Your task to perform on an android device: Clear the shopping cart on amazon.com. Add "razer blade" to the cart on amazon.com Image 0: 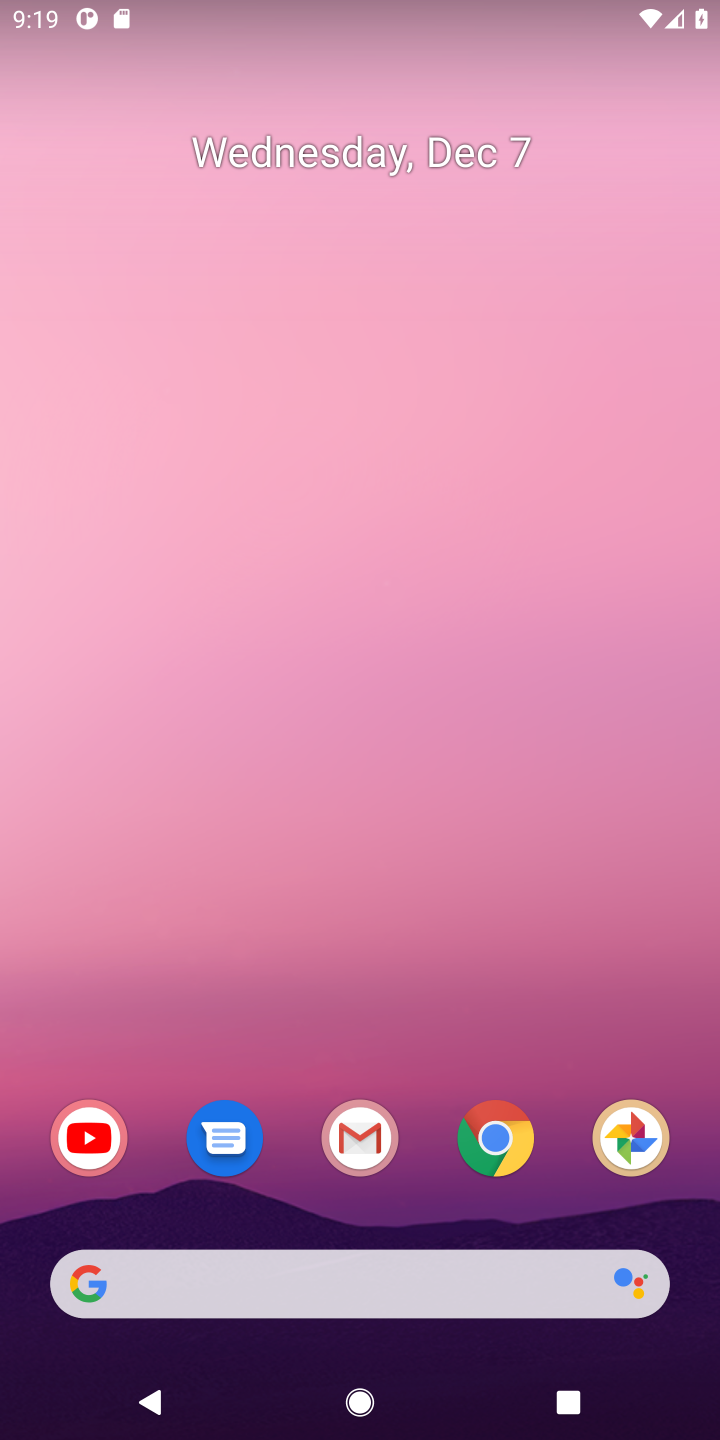
Step 0: press home button
Your task to perform on an android device: Clear the shopping cart on amazon.com. Add "razer blade" to the cart on amazon.com Image 1: 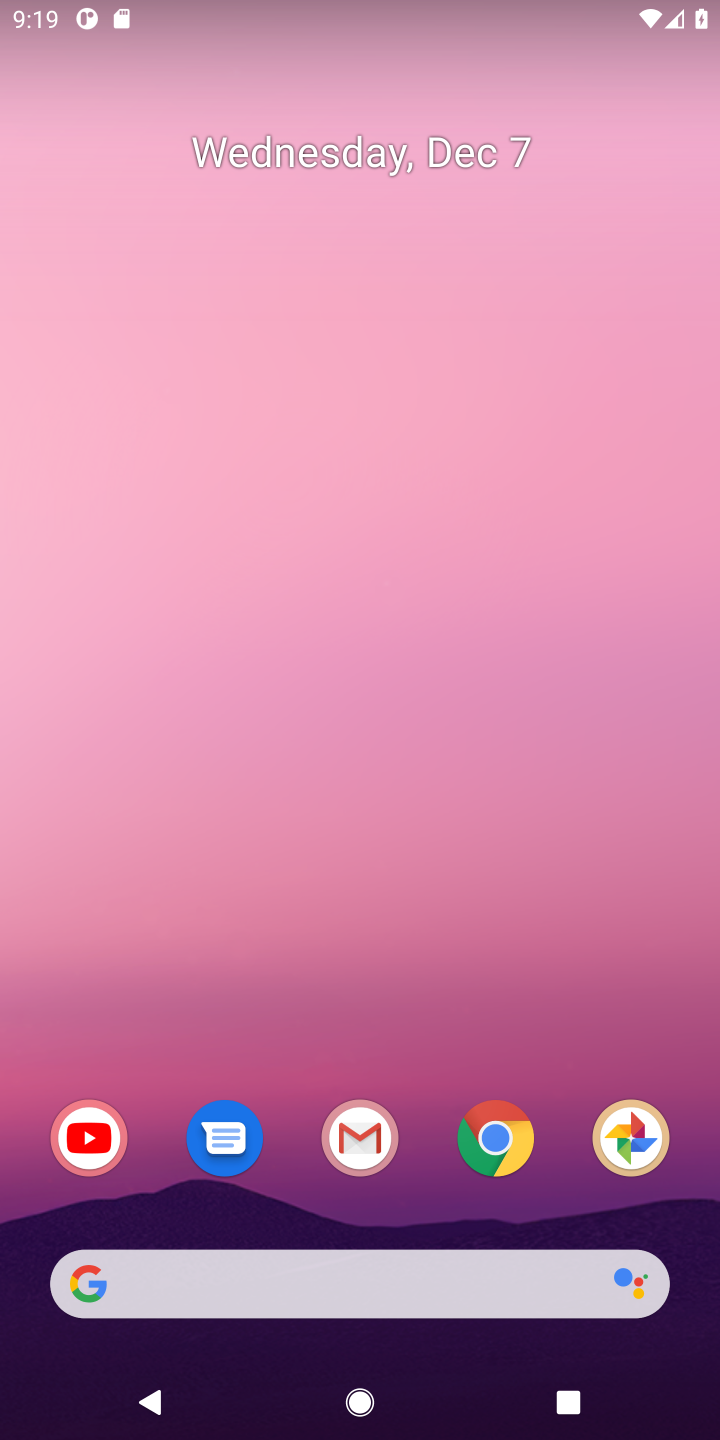
Step 1: click (131, 1278)
Your task to perform on an android device: Clear the shopping cart on amazon.com. Add "razer blade" to the cart on amazon.com Image 2: 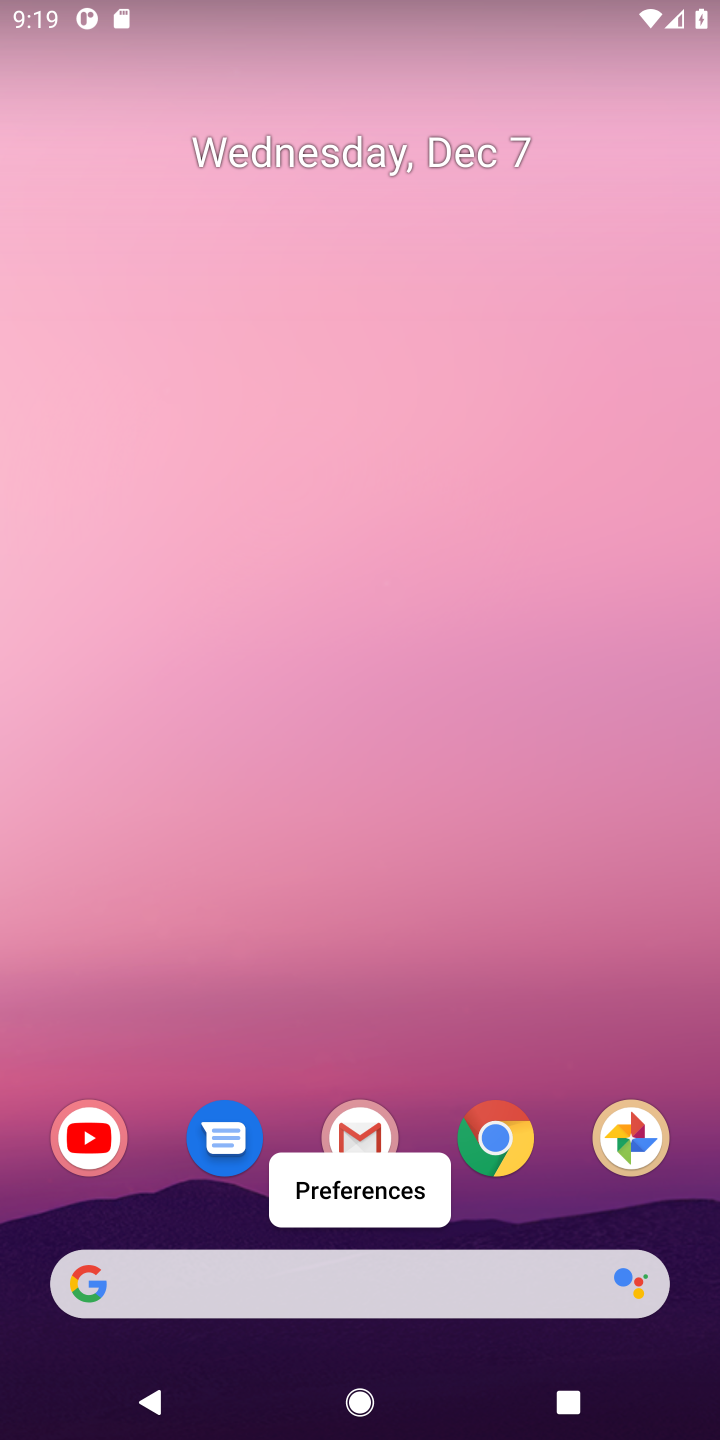
Step 2: click (123, 1274)
Your task to perform on an android device: Clear the shopping cart on amazon.com. Add "razer blade" to the cart on amazon.com Image 3: 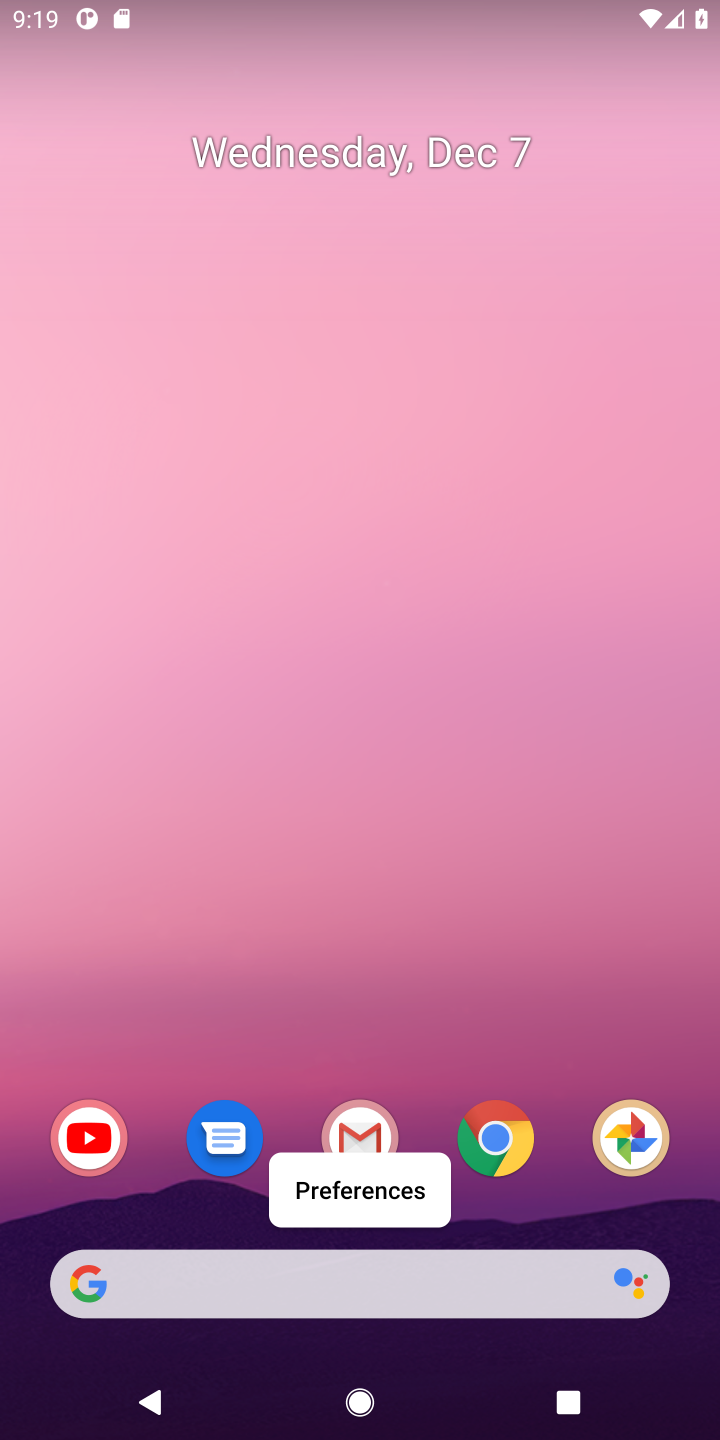
Step 3: click (128, 1283)
Your task to perform on an android device: Clear the shopping cart on amazon.com. Add "razer blade" to the cart on amazon.com Image 4: 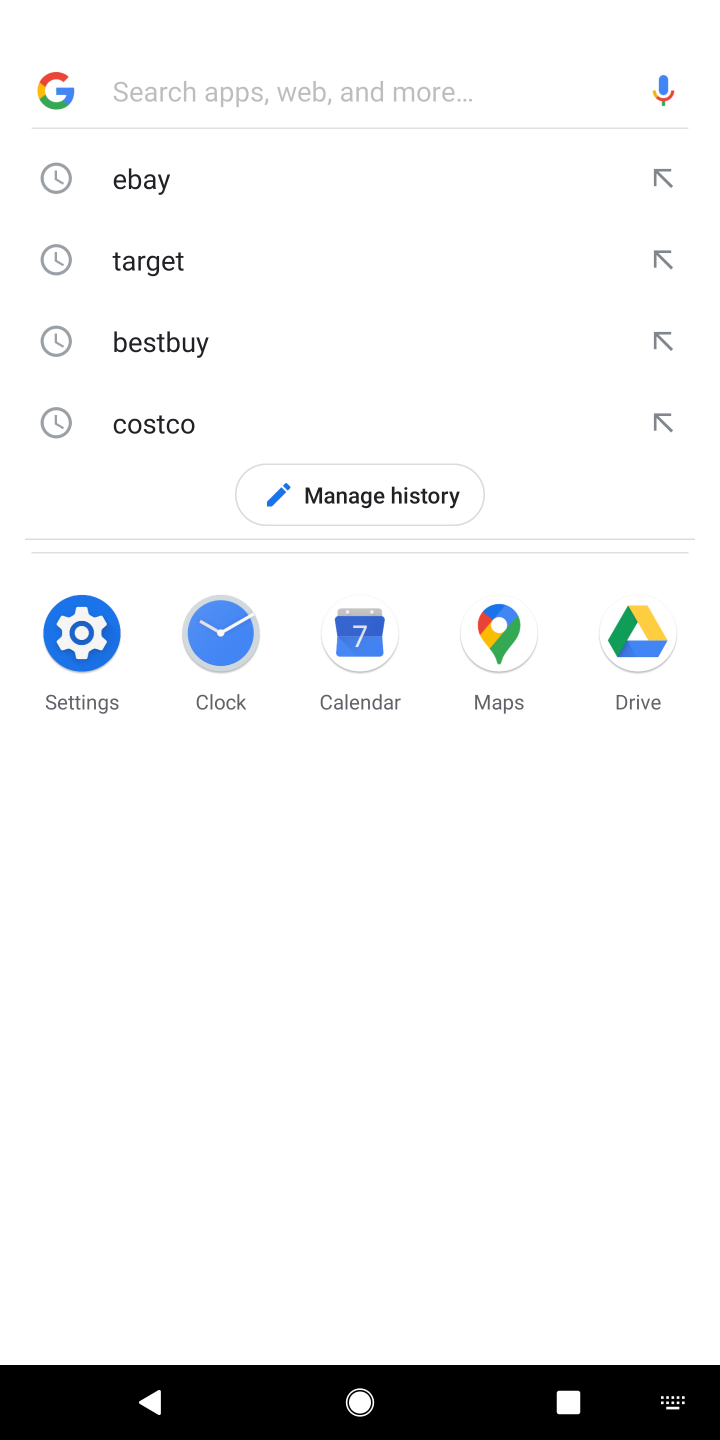
Step 4: type "amazon.com"
Your task to perform on an android device: Clear the shopping cart on amazon.com. Add "razer blade" to the cart on amazon.com Image 5: 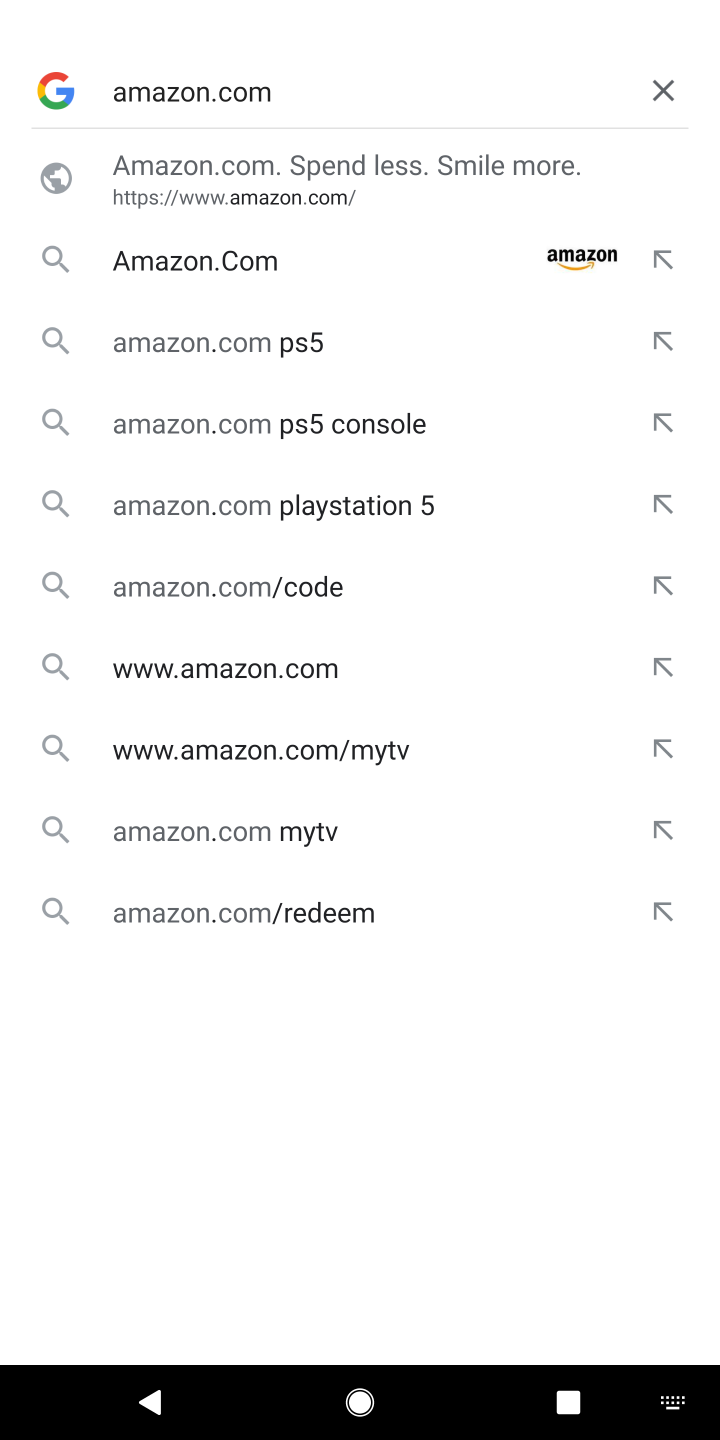
Step 5: press enter
Your task to perform on an android device: Clear the shopping cart on amazon.com. Add "razer blade" to the cart on amazon.com Image 6: 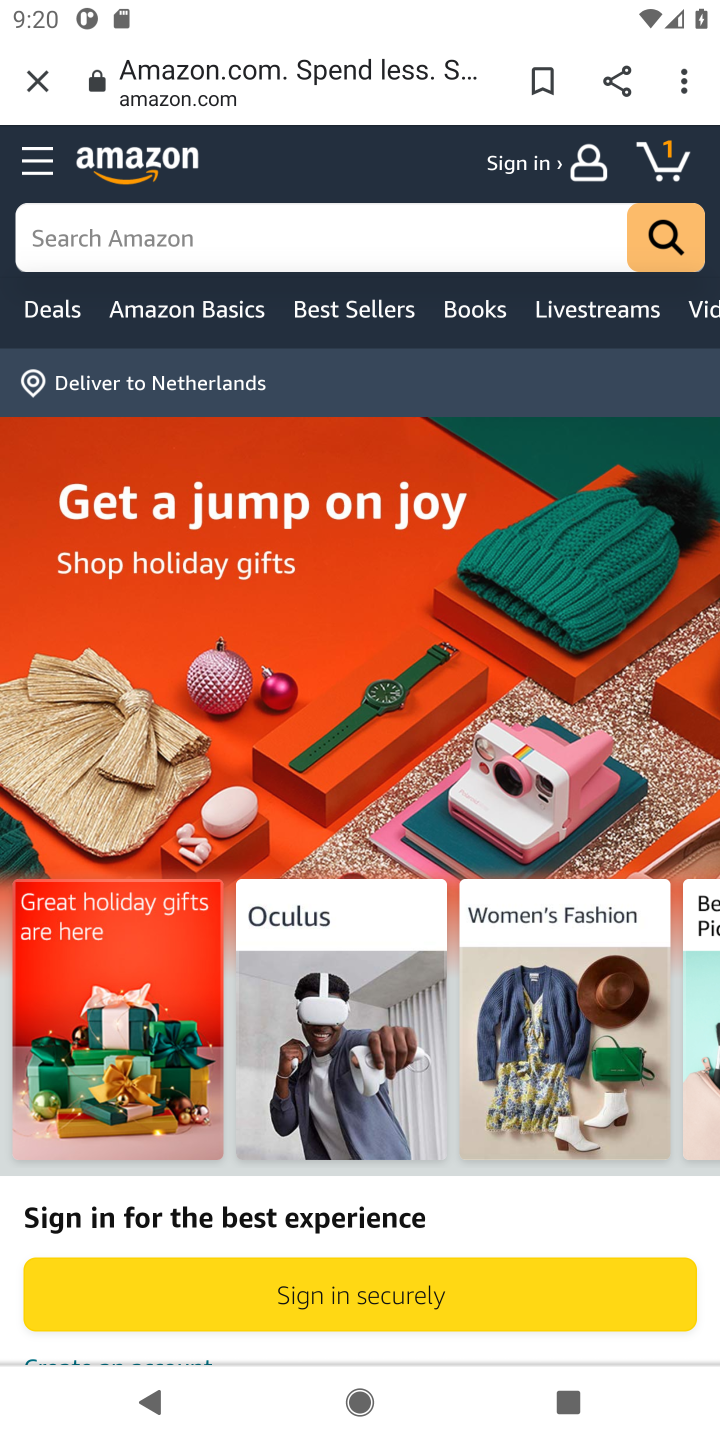
Step 6: click (663, 155)
Your task to perform on an android device: Clear the shopping cart on amazon.com. Add "razer blade" to the cart on amazon.com Image 7: 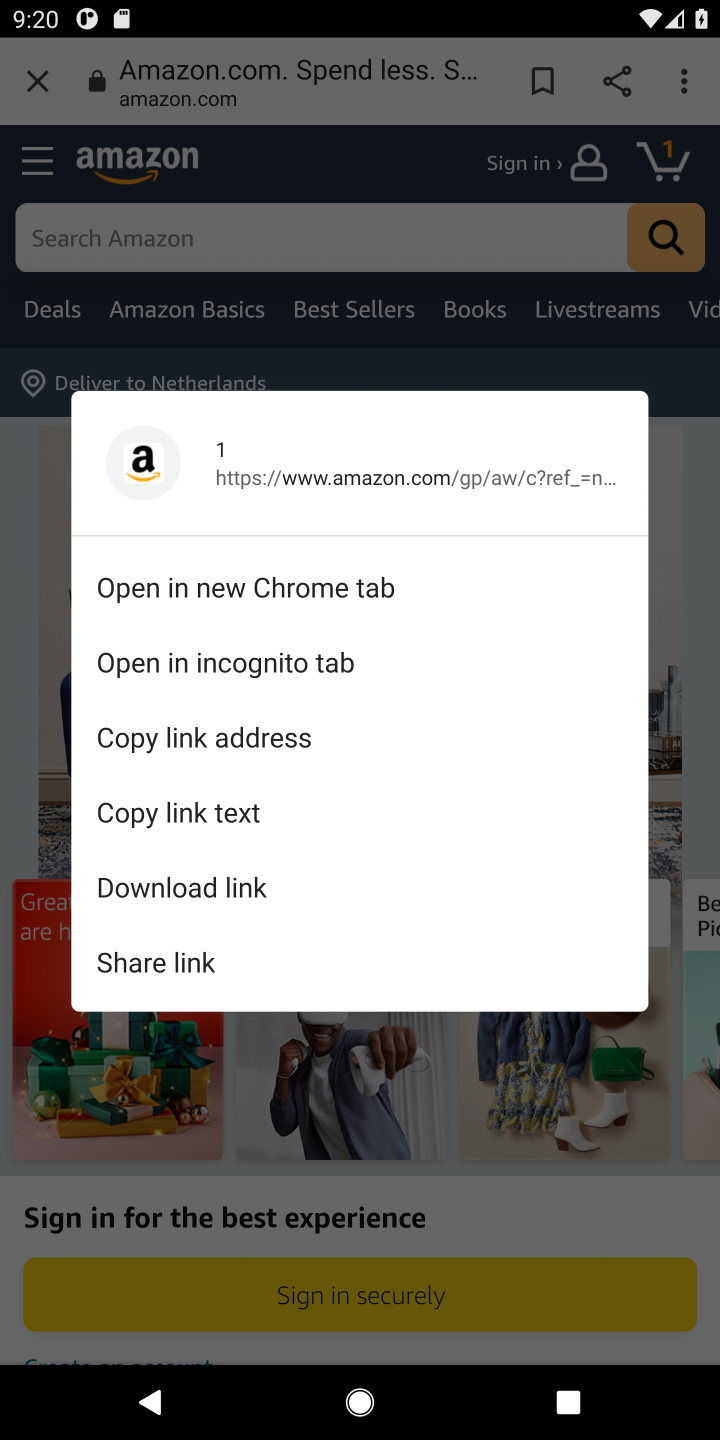
Step 7: click (581, 1087)
Your task to perform on an android device: Clear the shopping cart on amazon.com. Add "razer blade" to the cart on amazon.com Image 8: 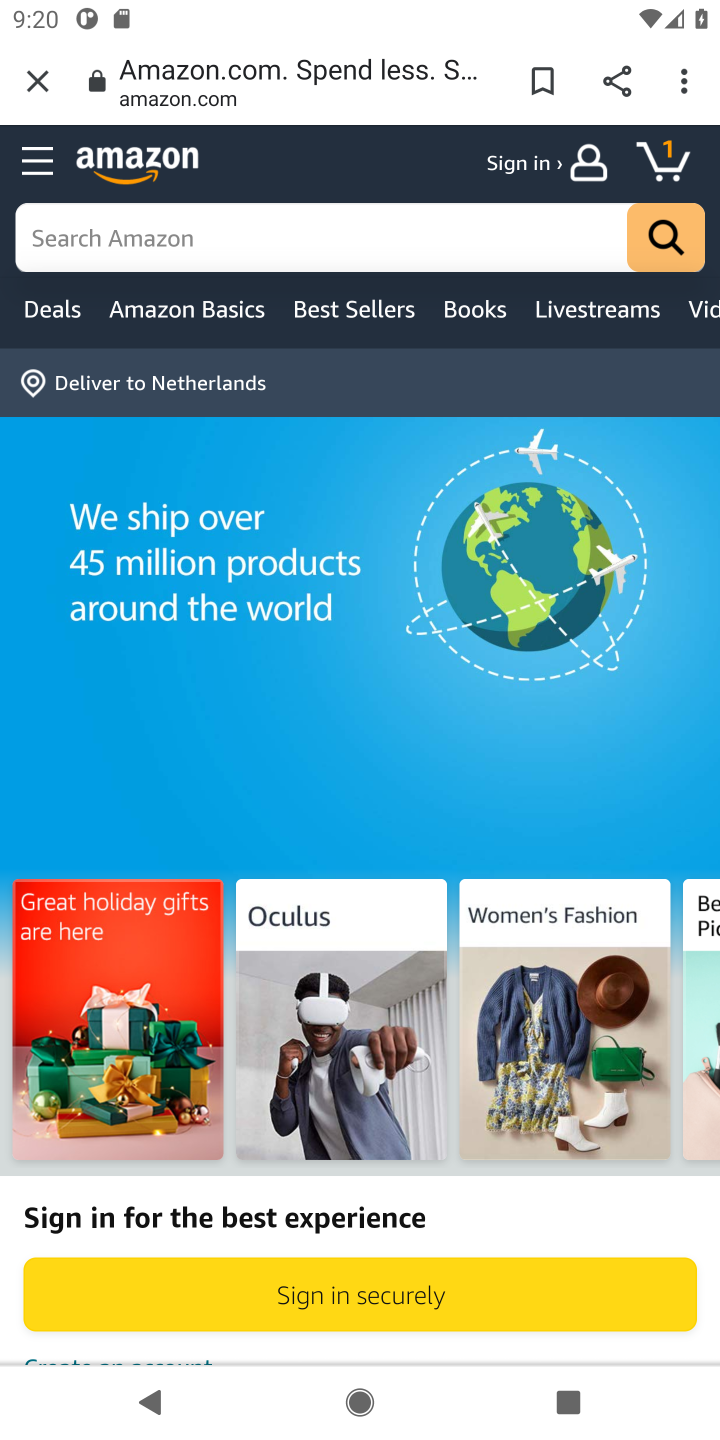
Step 8: click (662, 154)
Your task to perform on an android device: Clear the shopping cart on amazon.com. Add "razer blade" to the cart on amazon.com Image 9: 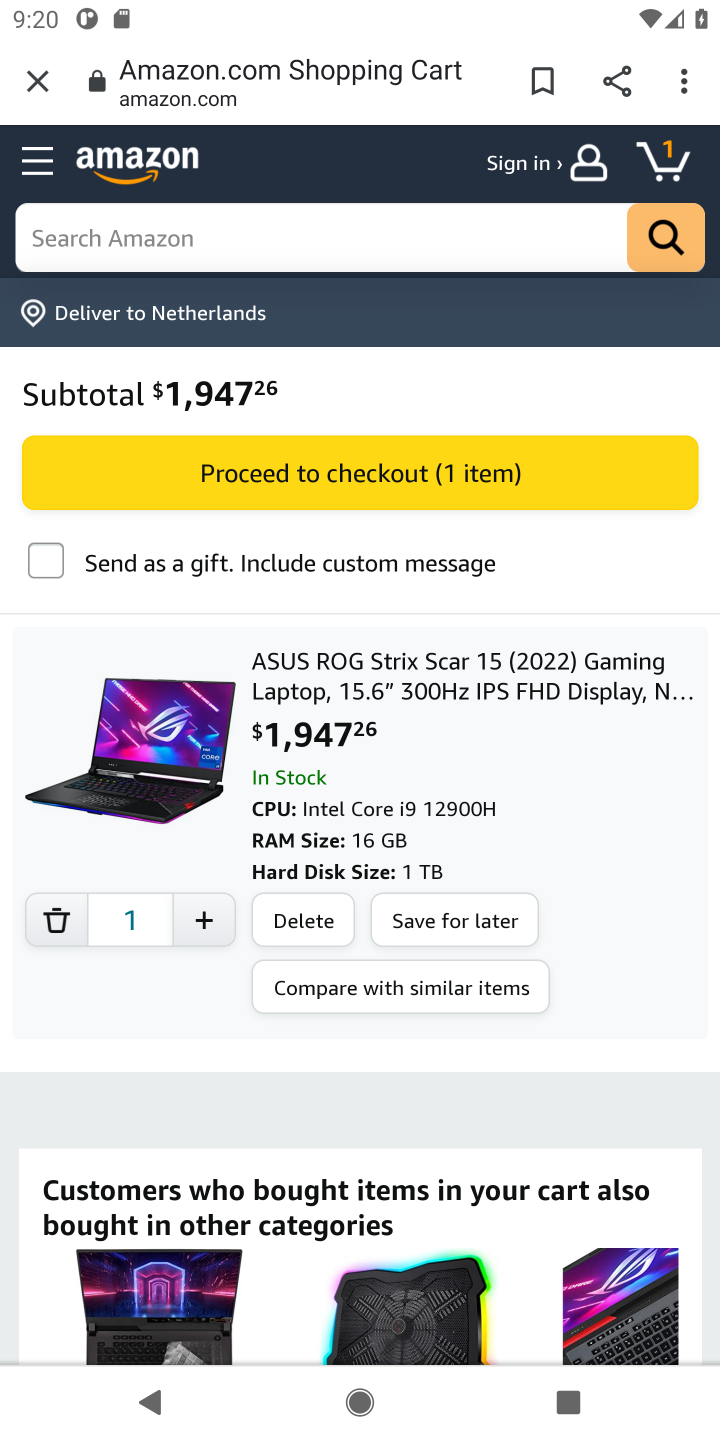
Step 9: click (59, 922)
Your task to perform on an android device: Clear the shopping cart on amazon.com. Add "razer blade" to the cart on amazon.com Image 10: 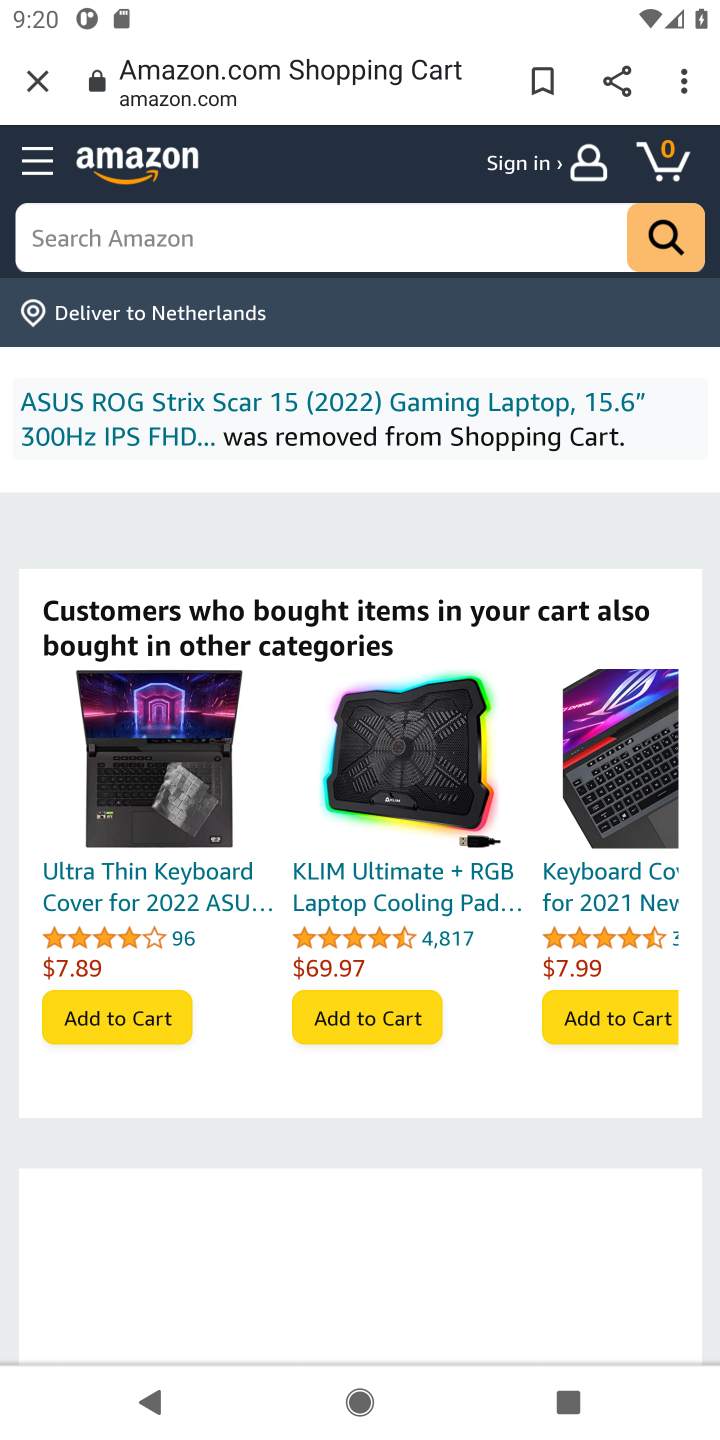
Step 10: click (281, 225)
Your task to perform on an android device: Clear the shopping cart on amazon.com. Add "razer blade" to the cart on amazon.com Image 11: 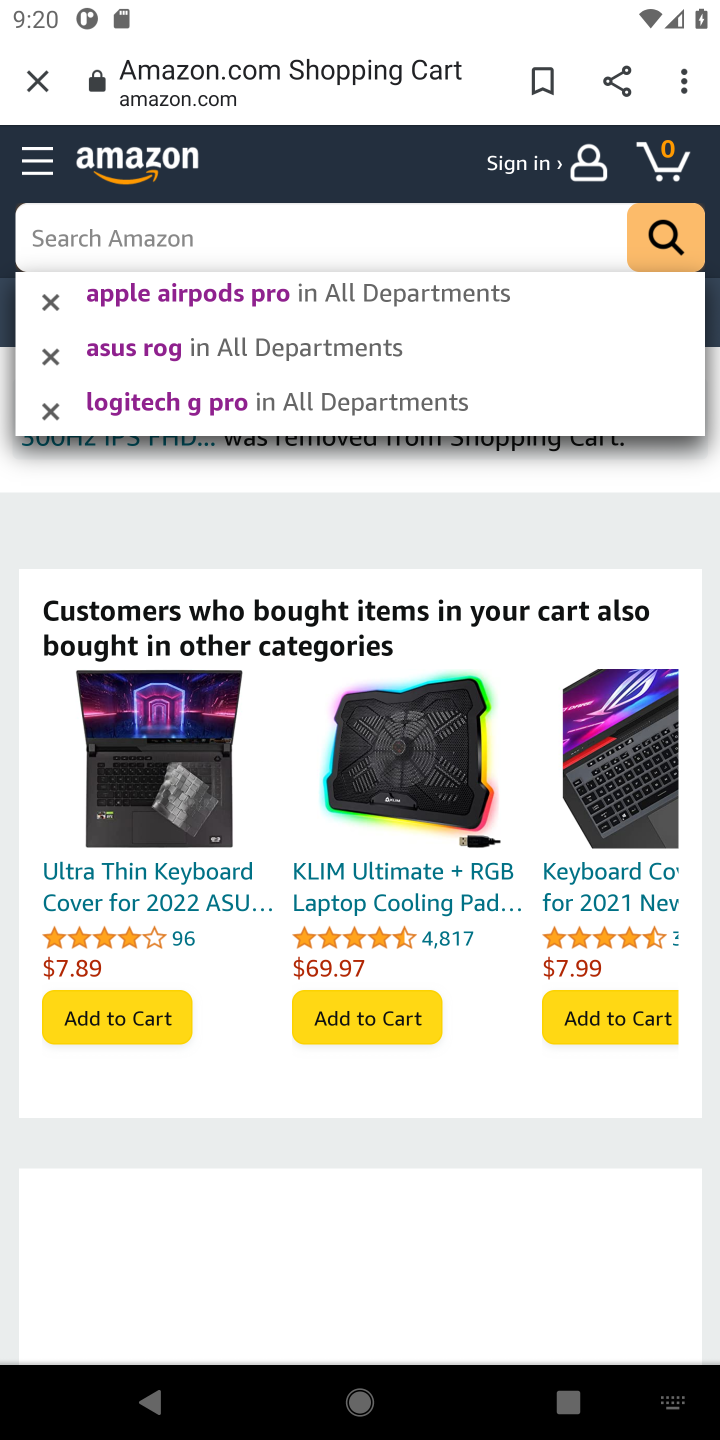
Step 11: type "razer blade"
Your task to perform on an android device: Clear the shopping cart on amazon.com. Add "razer blade" to the cart on amazon.com Image 12: 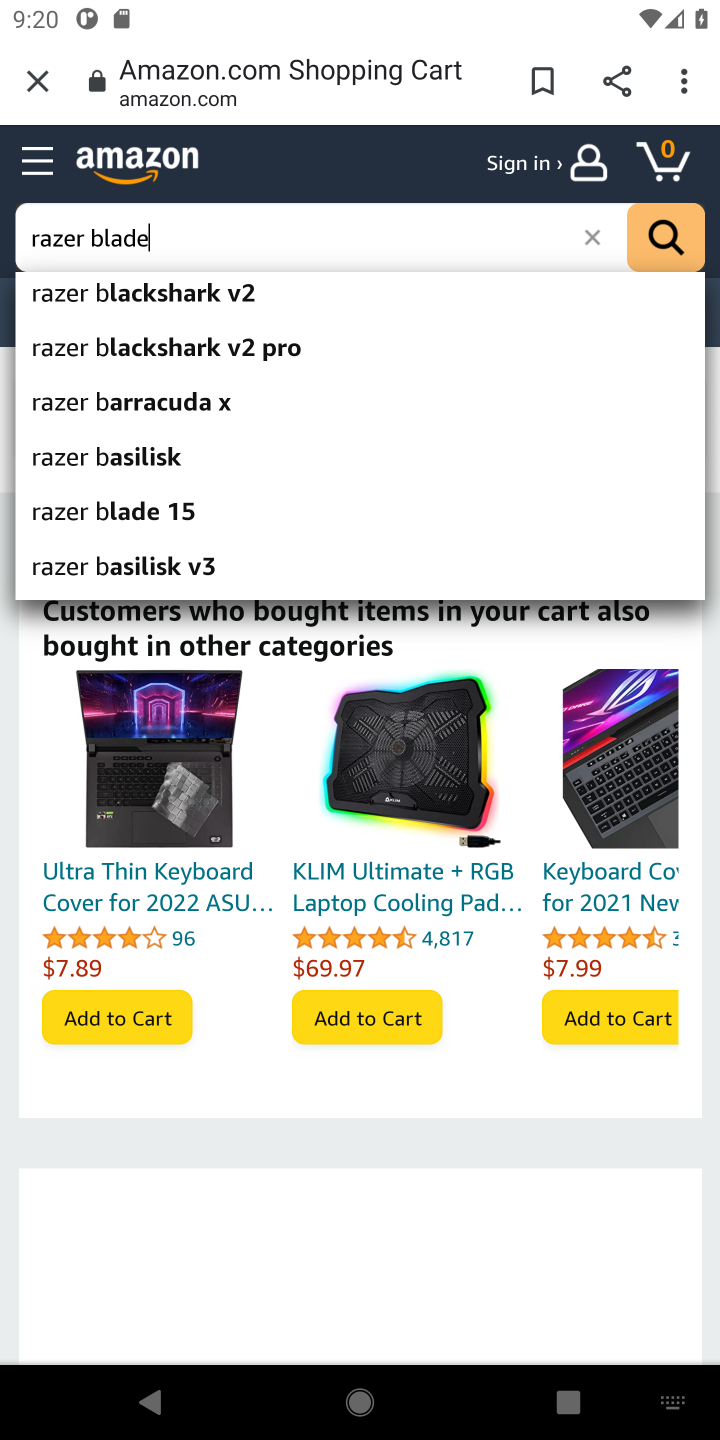
Step 12: press enter
Your task to perform on an android device: Clear the shopping cart on amazon.com. Add "razer blade" to the cart on amazon.com Image 13: 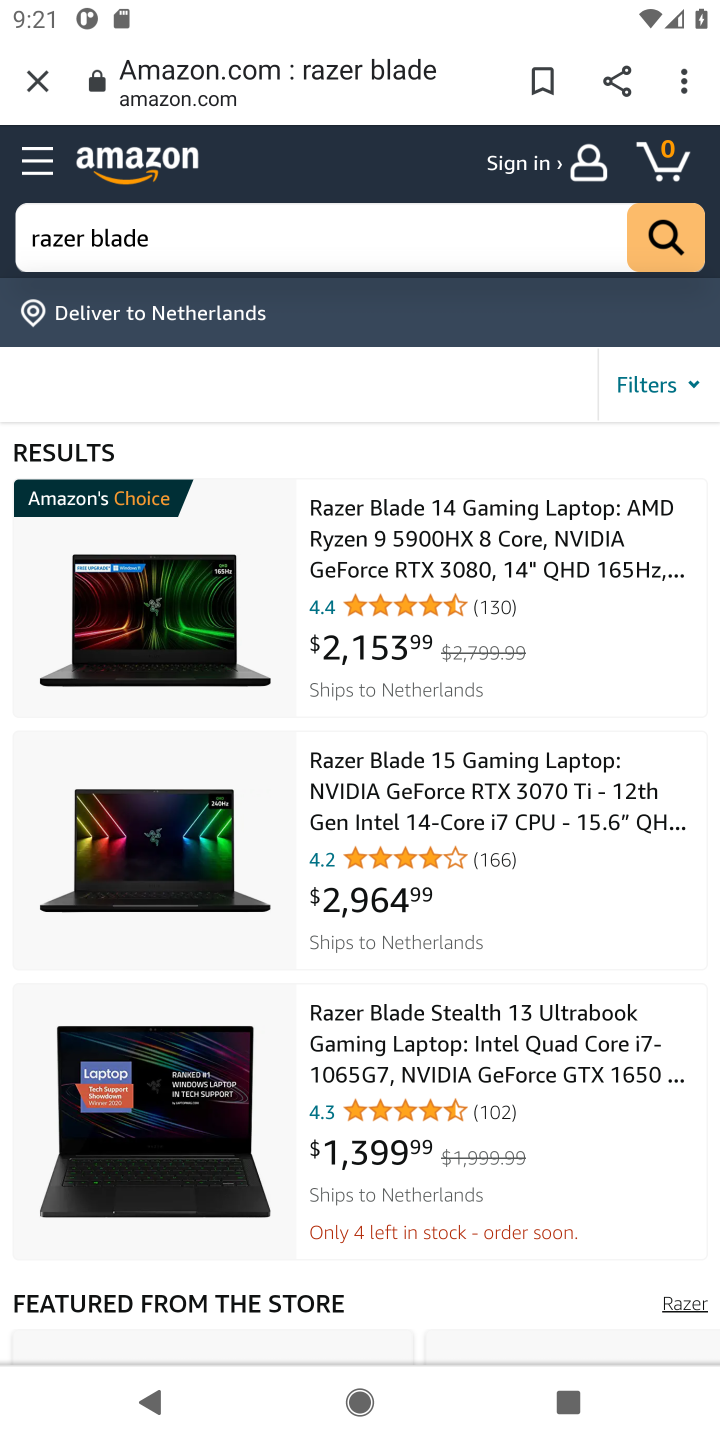
Step 13: click (393, 557)
Your task to perform on an android device: Clear the shopping cart on amazon.com. Add "razer blade" to the cart on amazon.com Image 14: 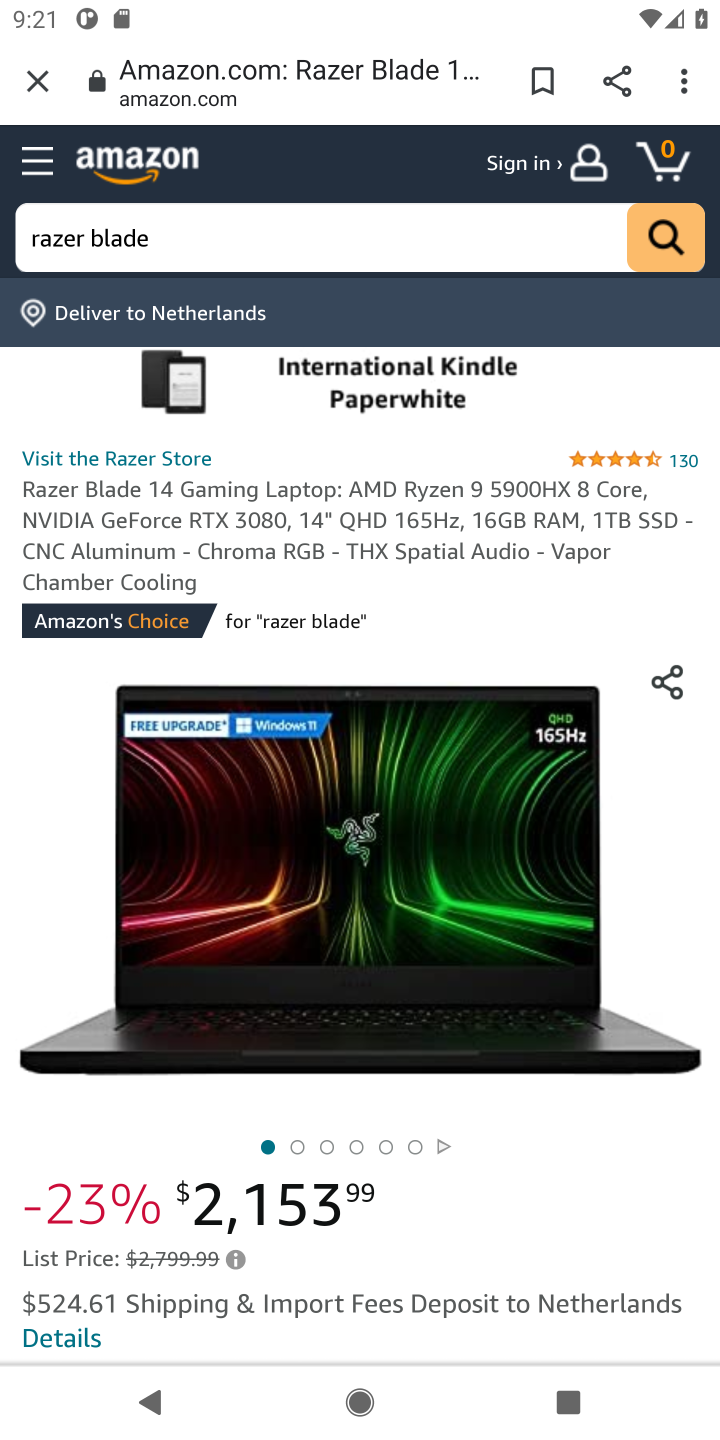
Step 14: drag from (398, 1162) to (396, 443)
Your task to perform on an android device: Clear the shopping cart on amazon.com. Add "razer blade" to the cart on amazon.com Image 15: 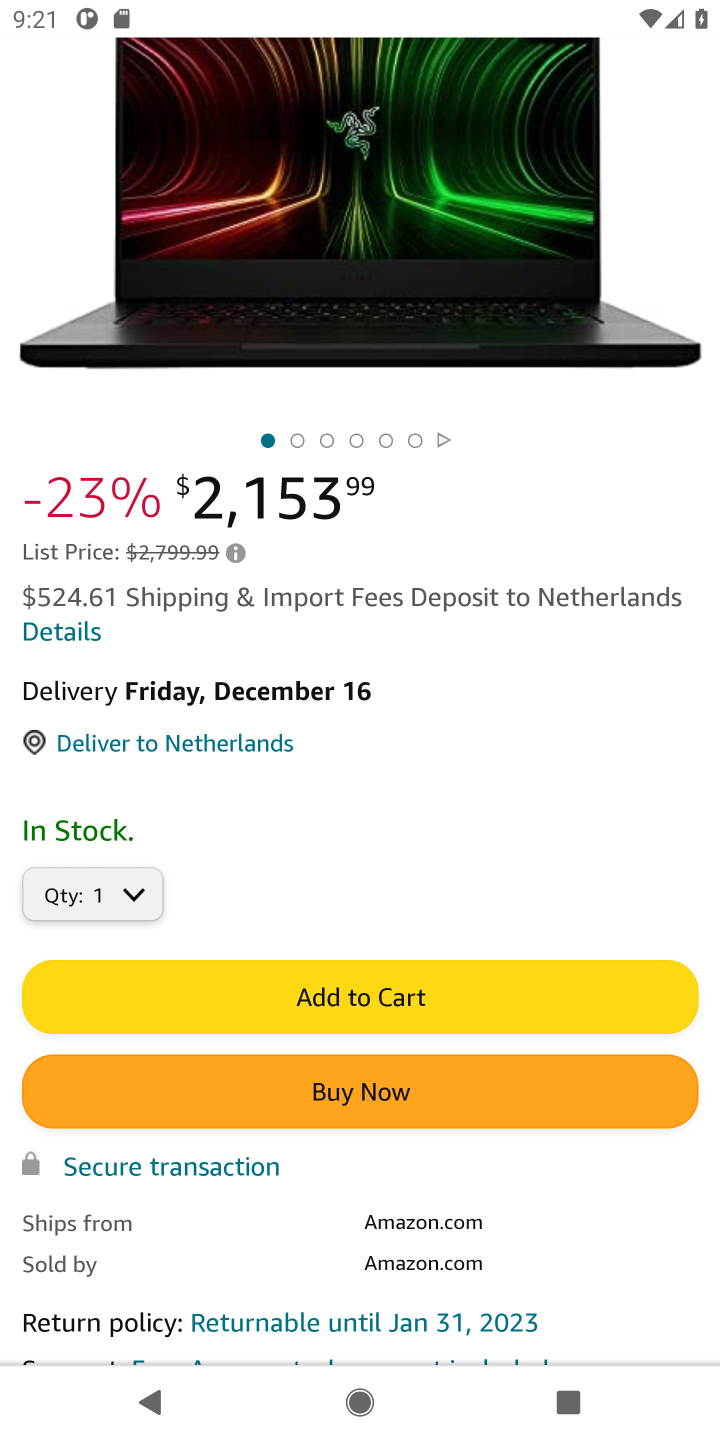
Step 15: click (334, 1010)
Your task to perform on an android device: Clear the shopping cart on amazon.com. Add "razer blade" to the cart on amazon.com Image 16: 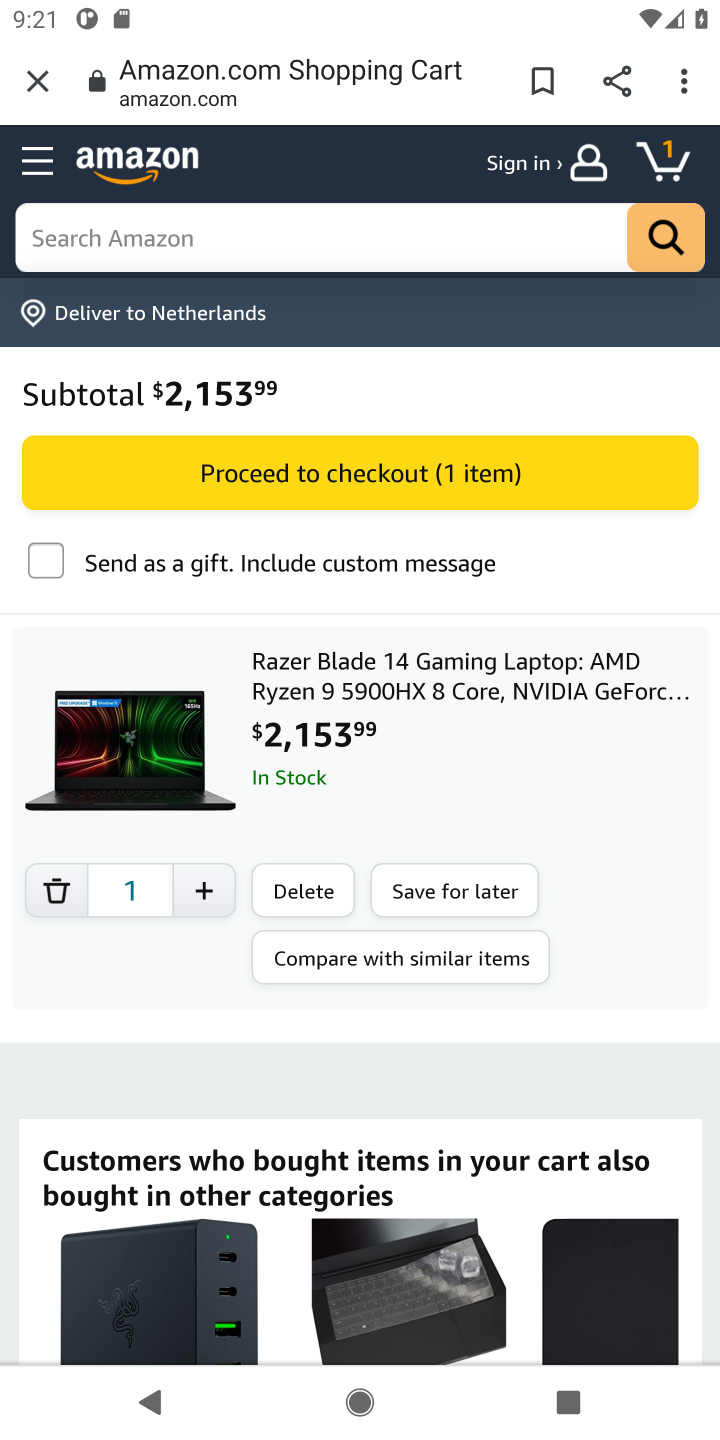
Step 16: task complete